Your task to perform on an android device: add a contact in the contacts app Image 0: 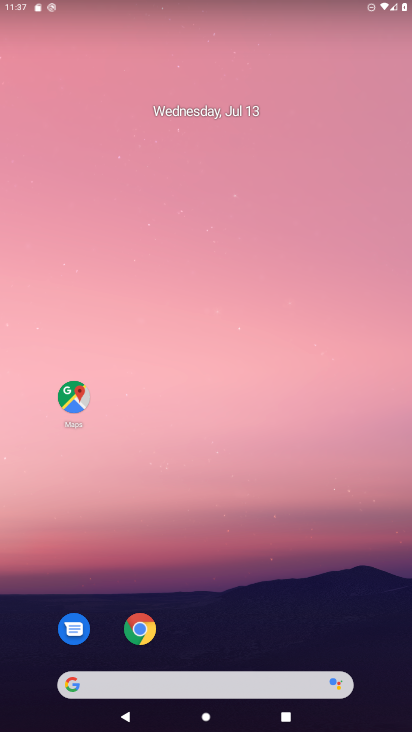
Step 0: drag from (376, 713) to (315, 143)
Your task to perform on an android device: add a contact in the contacts app Image 1: 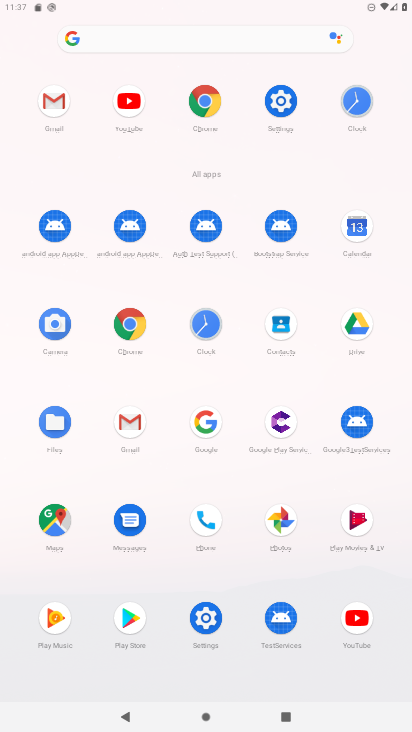
Step 1: click (274, 320)
Your task to perform on an android device: add a contact in the contacts app Image 2: 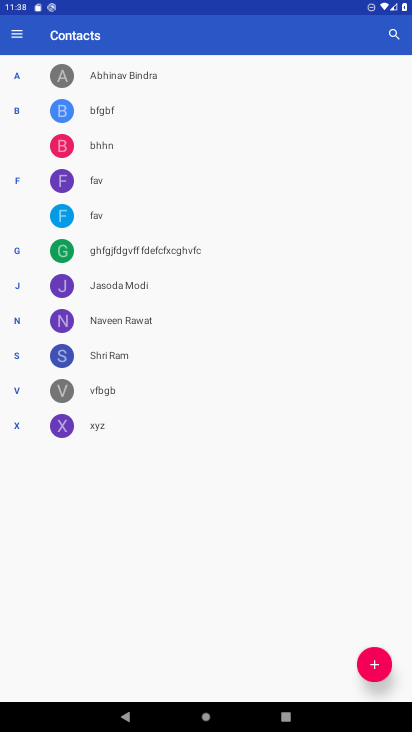
Step 2: click (387, 656)
Your task to perform on an android device: add a contact in the contacts app Image 3: 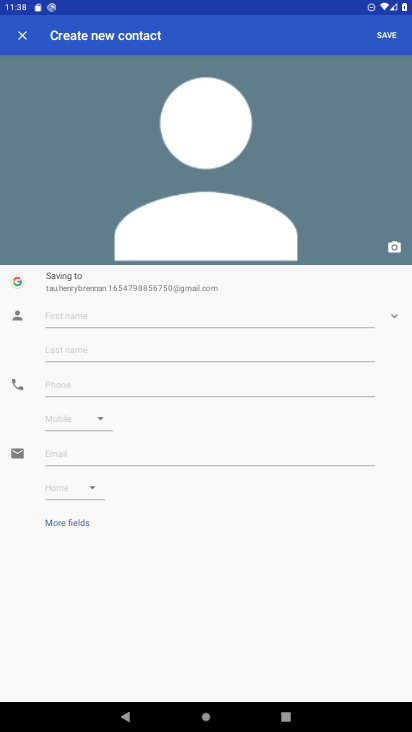
Step 3: click (216, 306)
Your task to perform on an android device: add a contact in the contacts app Image 4: 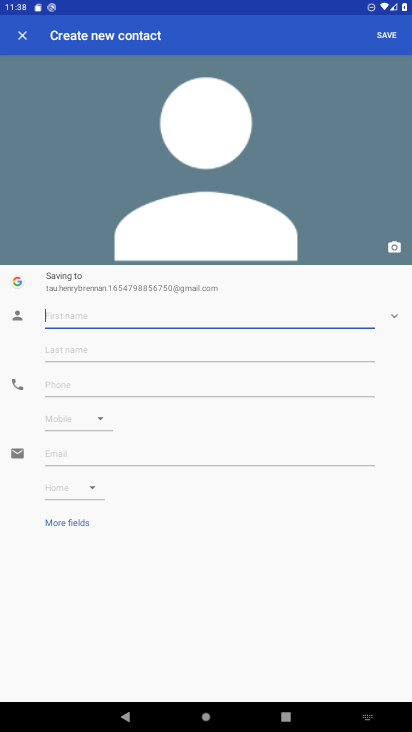
Step 4: type "gfsfdfdhghf"
Your task to perform on an android device: add a contact in the contacts app Image 5: 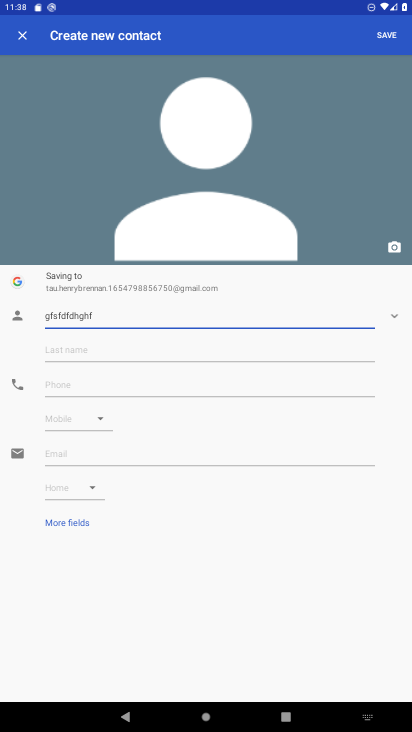
Step 5: click (111, 344)
Your task to perform on an android device: add a contact in the contacts app Image 6: 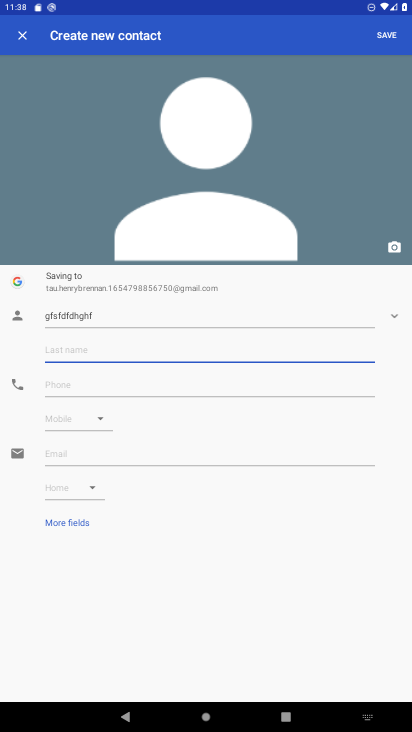
Step 6: type "rdrgcfvj"
Your task to perform on an android device: add a contact in the contacts app Image 7: 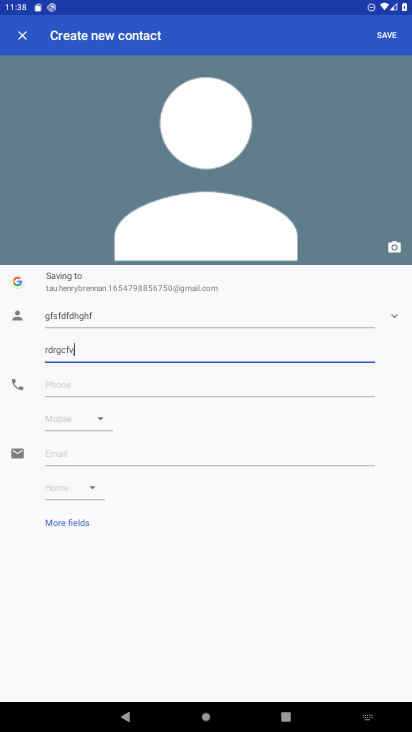
Step 7: click (67, 387)
Your task to perform on an android device: add a contact in the contacts app Image 8: 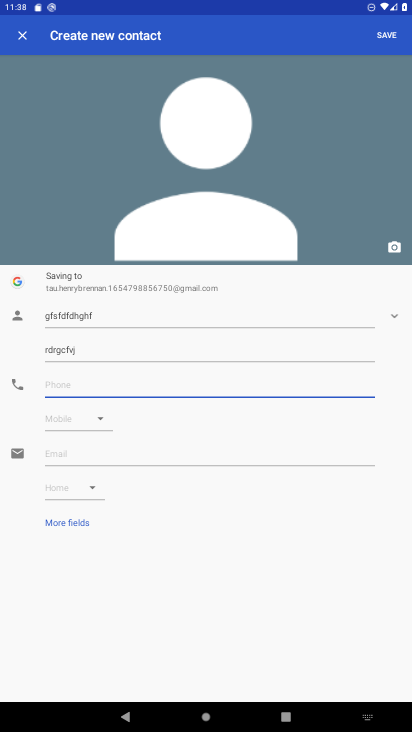
Step 8: type "648744744457"
Your task to perform on an android device: add a contact in the contacts app Image 9: 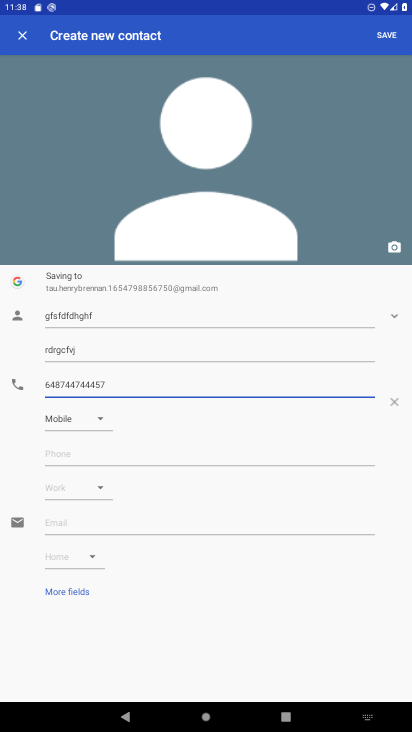
Step 9: click (389, 39)
Your task to perform on an android device: add a contact in the contacts app Image 10: 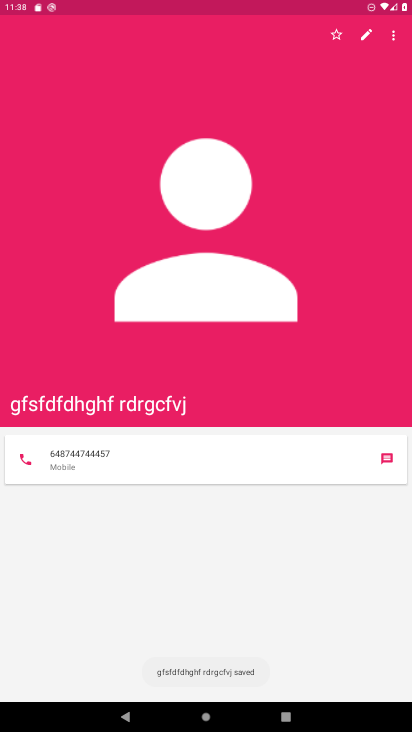
Step 10: task complete